Your task to perform on an android device: toggle improve location accuracy Image 0: 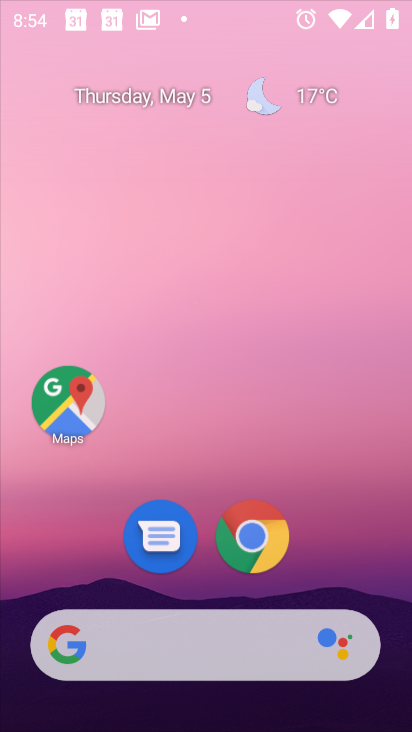
Step 0: drag from (328, 585) to (329, 165)
Your task to perform on an android device: toggle improve location accuracy Image 1: 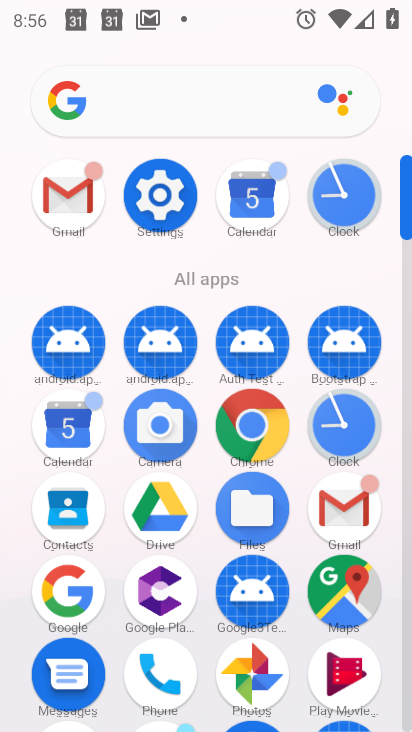
Step 1: click (178, 210)
Your task to perform on an android device: toggle improve location accuracy Image 2: 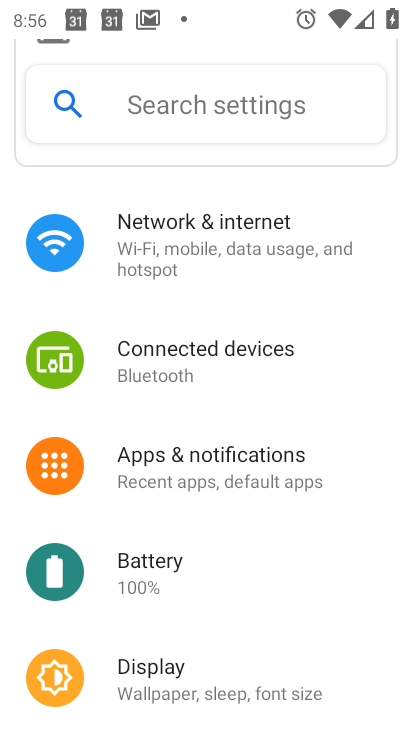
Step 2: drag from (302, 562) to (310, 330)
Your task to perform on an android device: toggle improve location accuracy Image 3: 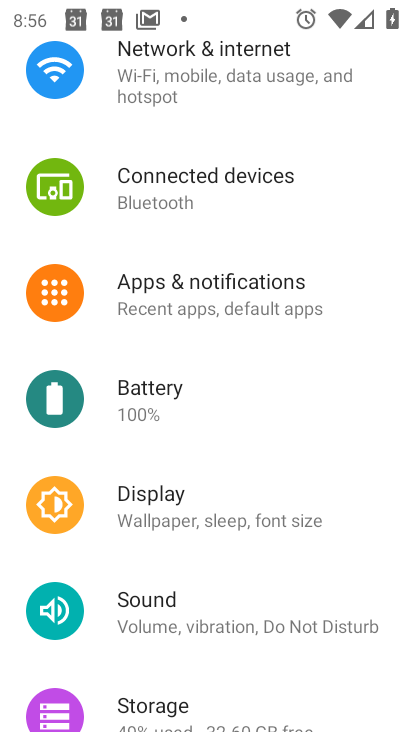
Step 3: drag from (206, 616) to (227, 333)
Your task to perform on an android device: toggle improve location accuracy Image 4: 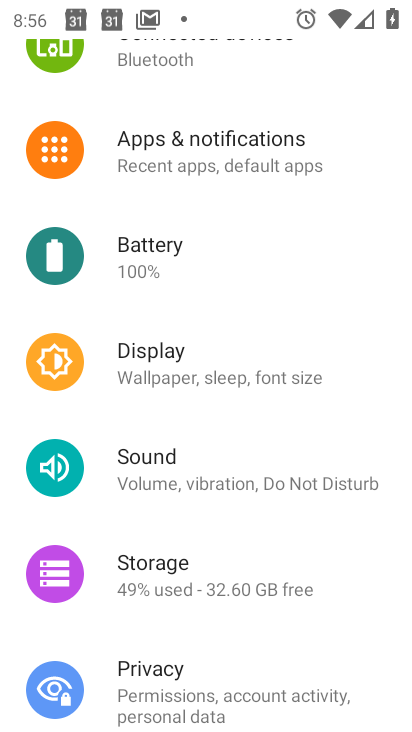
Step 4: drag from (207, 624) to (234, 320)
Your task to perform on an android device: toggle improve location accuracy Image 5: 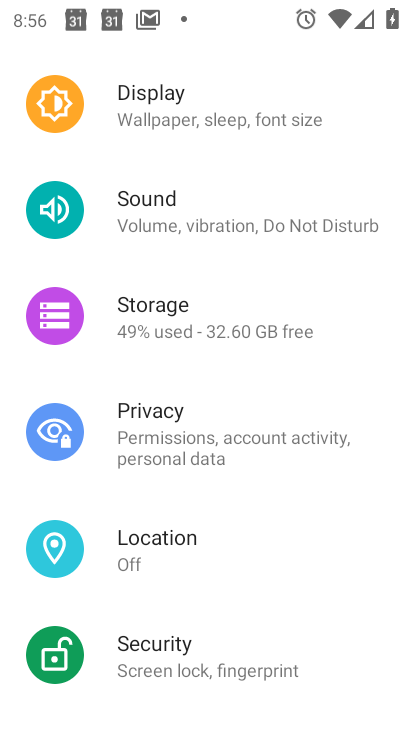
Step 5: click (217, 549)
Your task to perform on an android device: toggle improve location accuracy Image 6: 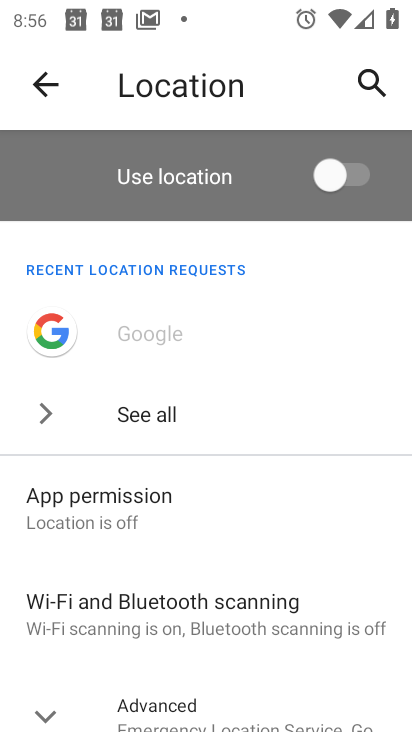
Step 6: click (320, 190)
Your task to perform on an android device: toggle improve location accuracy Image 7: 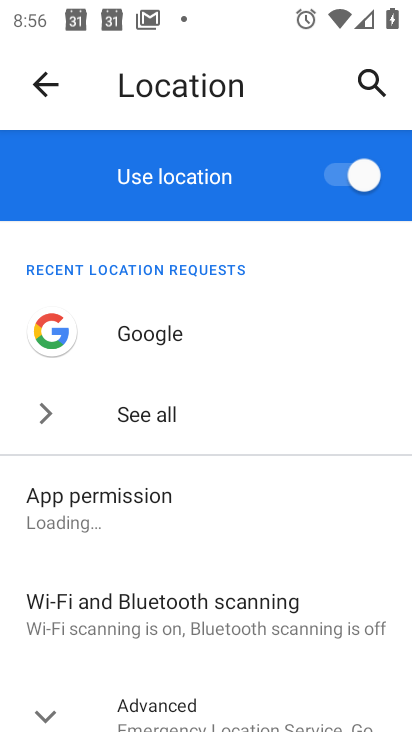
Step 7: drag from (198, 551) to (209, 420)
Your task to perform on an android device: toggle improve location accuracy Image 8: 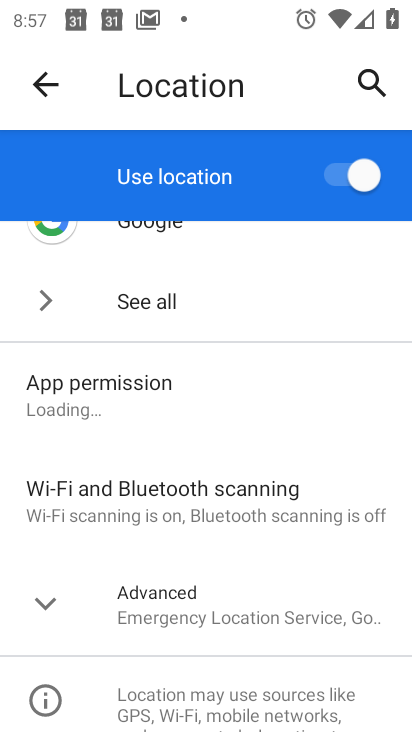
Step 8: click (196, 589)
Your task to perform on an android device: toggle improve location accuracy Image 9: 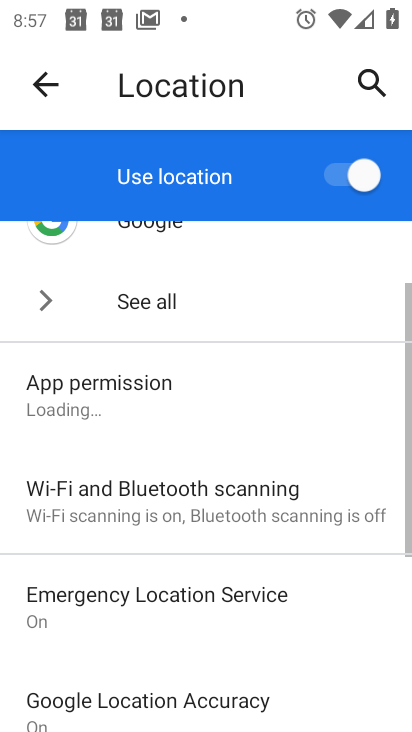
Step 9: drag from (196, 589) to (261, 389)
Your task to perform on an android device: toggle improve location accuracy Image 10: 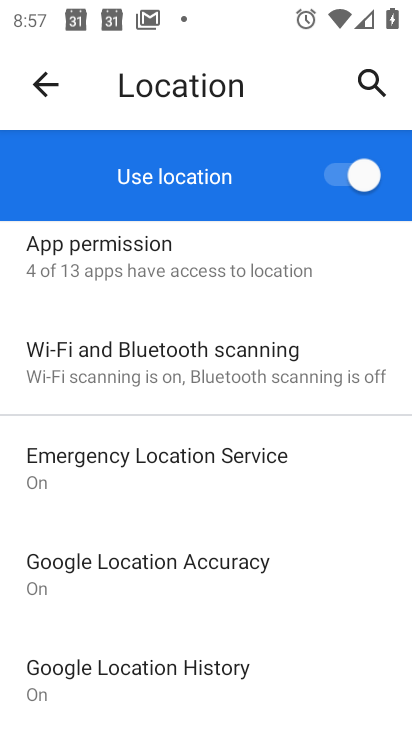
Step 10: click (204, 554)
Your task to perform on an android device: toggle improve location accuracy Image 11: 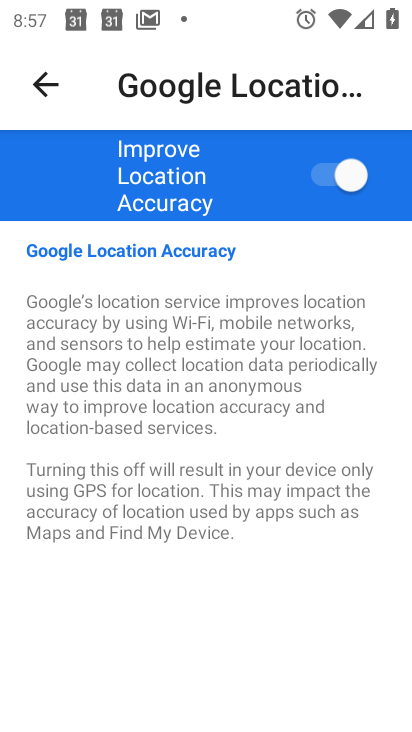
Step 11: click (334, 214)
Your task to perform on an android device: toggle improve location accuracy Image 12: 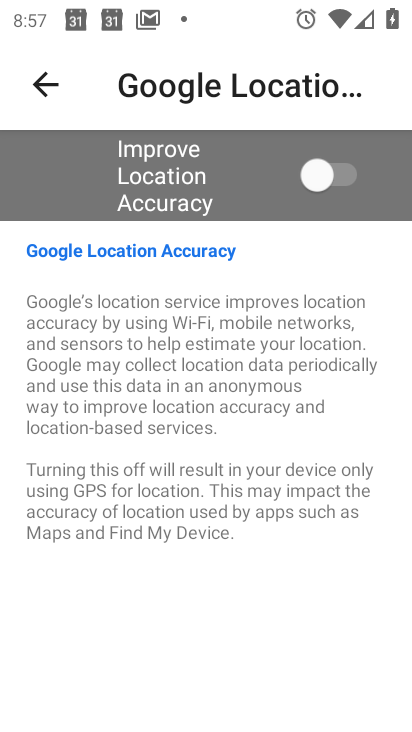
Step 12: task complete